Your task to perform on an android device: Open Google Maps and go to "Timeline" Image 0: 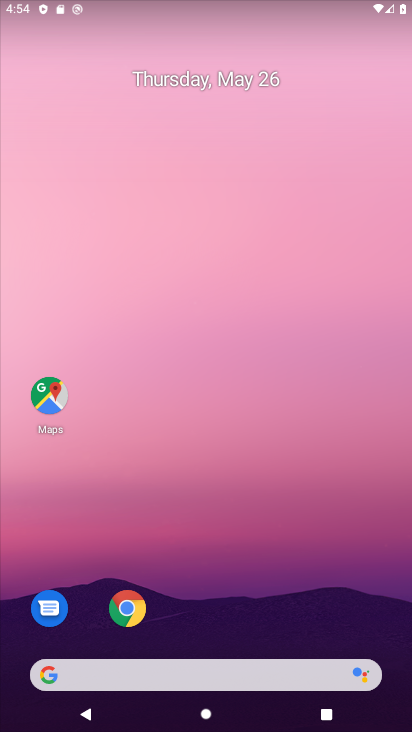
Step 0: click (55, 391)
Your task to perform on an android device: Open Google Maps and go to "Timeline" Image 1: 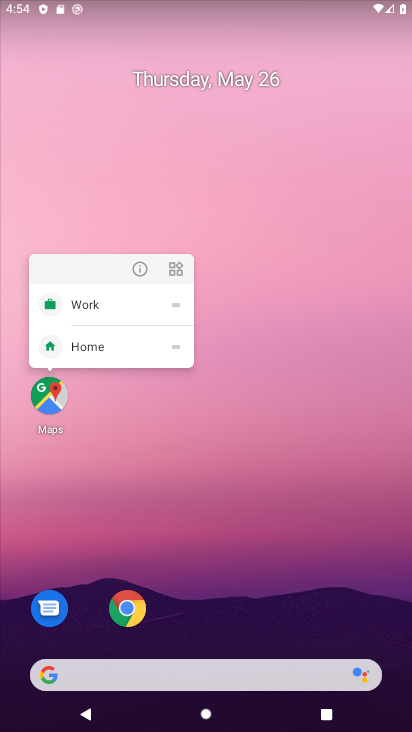
Step 1: click (47, 429)
Your task to perform on an android device: Open Google Maps and go to "Timeline" Image 2: 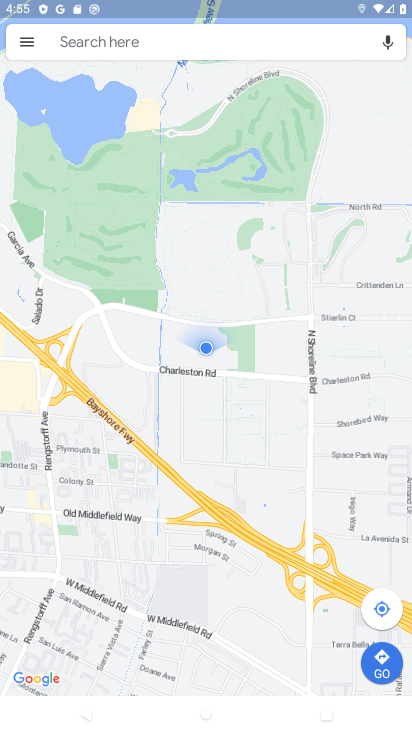
Step 2: click (34, 30)
Your task to perform on an android device: Open Google Maps and go to "Timeline" Image 3: 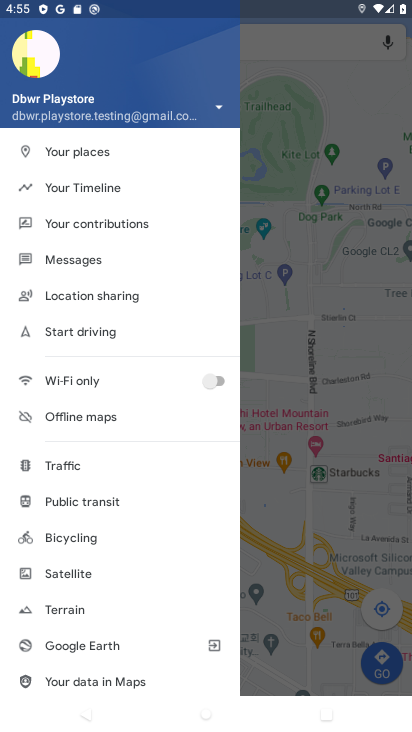
Step 3: click (87, 186)
Your task to perform on an android device: Open Google Maps and go to "Timeline" Image 4: 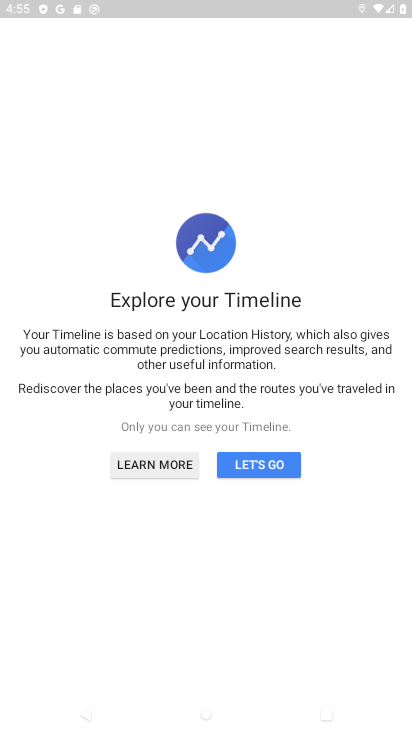
Step 4: click (285, 473)
Your task to perform on an android device: Open Google Maps and go to "Timeline" Image 5: 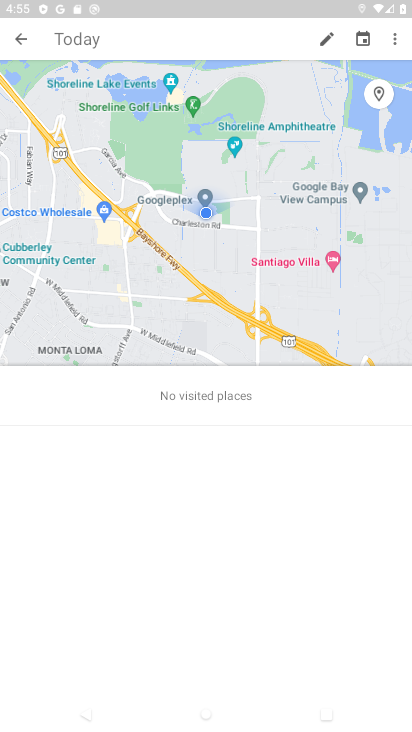
Step 5: task complete